Your task to perform on an android device: Open the Play Movies app and select the watchlist tab. Image 0: 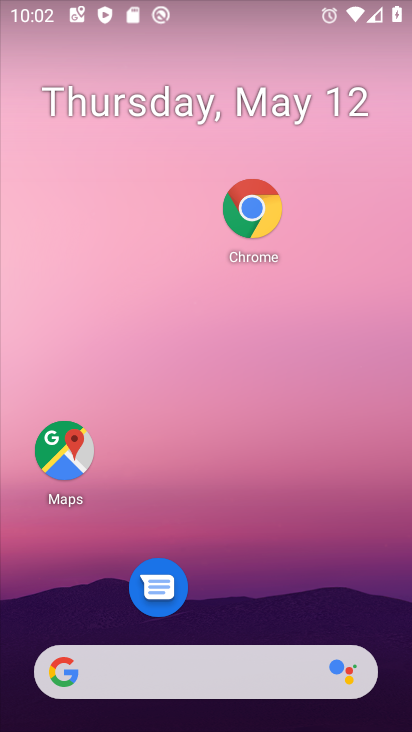
Step 0: drag from (328, 570) to (351, 165)
Your task to perform on an android device: Open the Play Movies app and select the watchlist tab. Image 1: 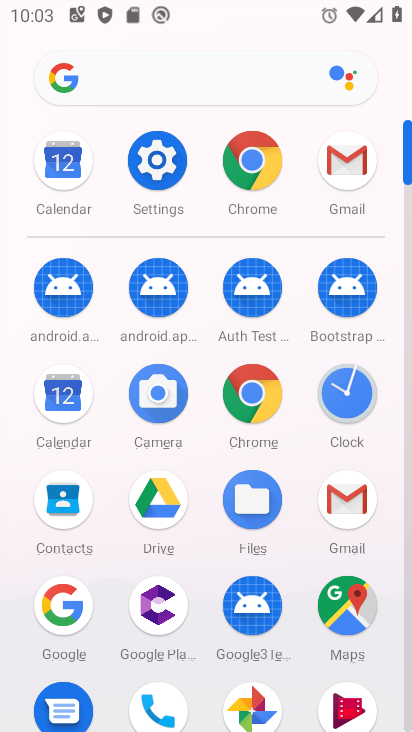
Step 1: click (340, 693)
Your task to perform on an android device: Open the Play Movies app and select the watchlist tab. Image 2: 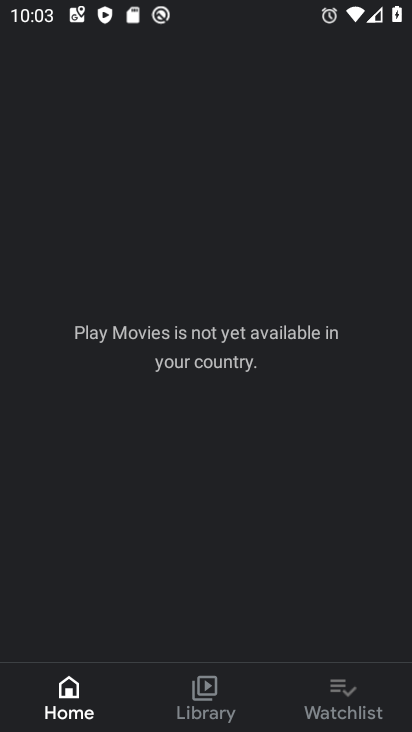
Step 2: click (332, 686)
Your task to perform on an android device: Open the Play Movies app and select the watchlist tab. Image 3: 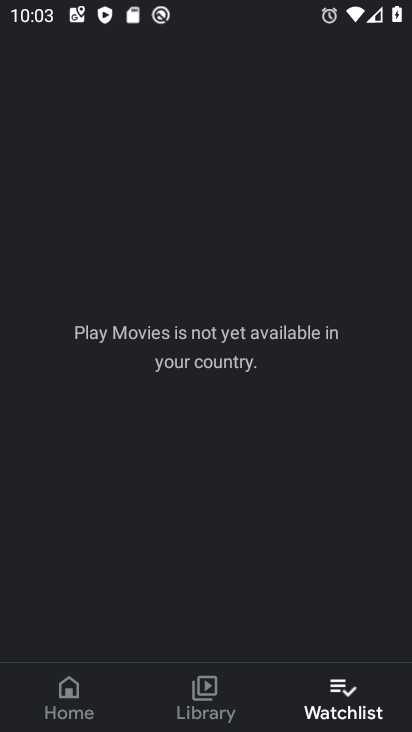
Step 3: task complete